Your task to perform on an android device: change the upload size in google photos Image 0: 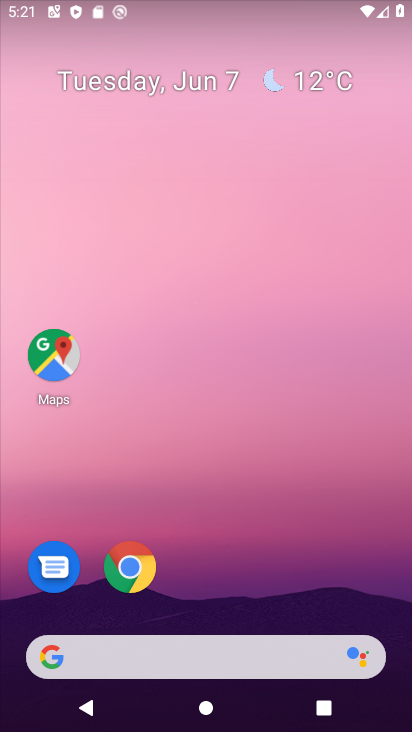
Step 0: drag from (275, 561) to (188, 18)
Your task to perform on an android device: change the upload size in google photos Image 1: 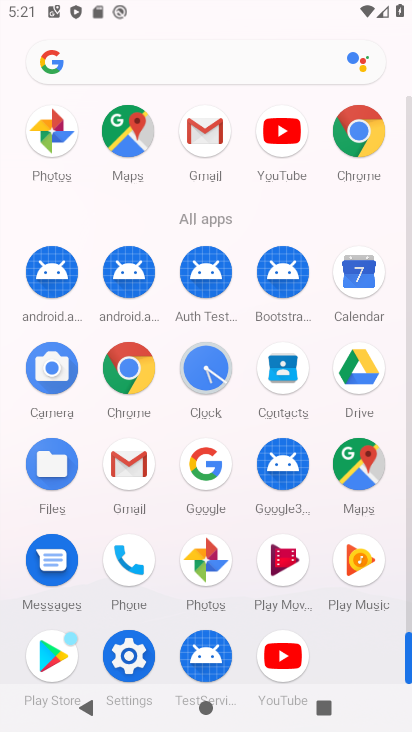
Step 1: click (205, 561)
Your task to perform on an android device: change the upload size in google photos Image 2: 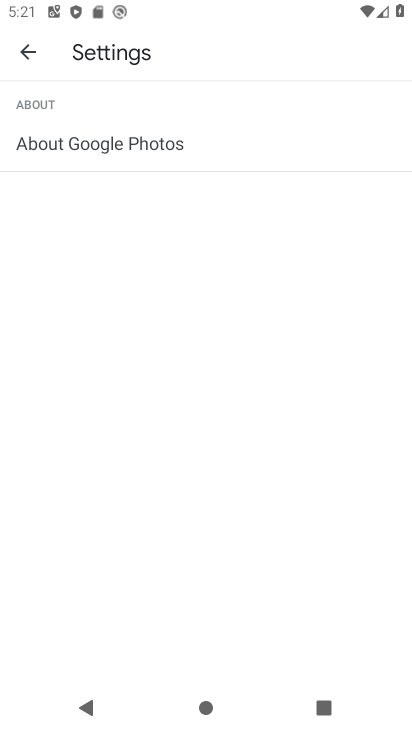
Step 2: click (28, 58)
Your task to perform on an android device: change the upload size in google photos Image 3: 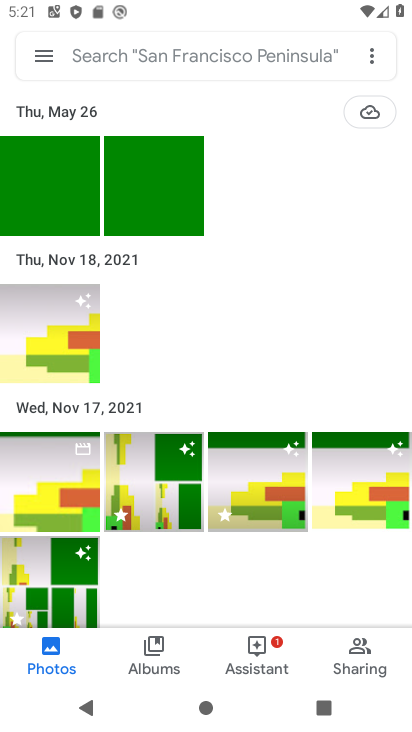
Step 3: click (50, 52)
Your task to perform on an android device: change the upload size in google photos Image 4: 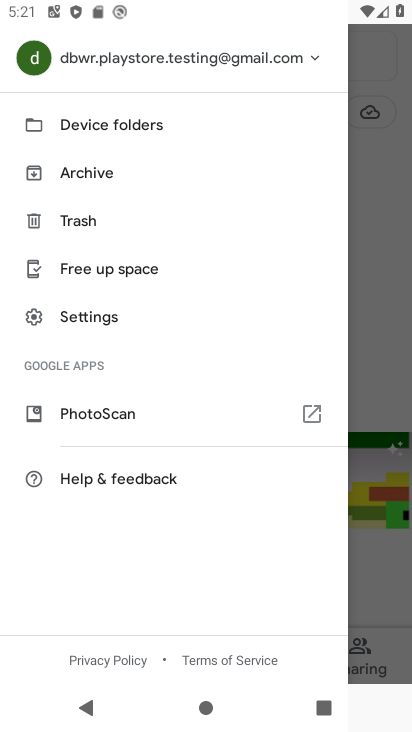
Step 4: click (118, 303)
Your task to perform on an android device: change the upload size in google photos Image 5: 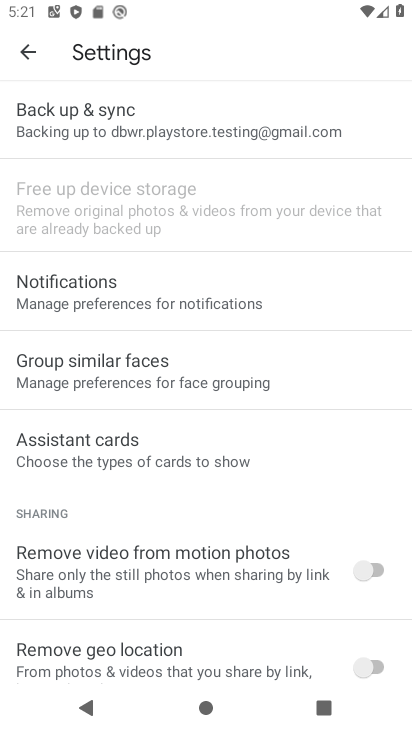
Step 5: click (194, 124)
Your task to perform on an android device: change the upload size in google photos Image 6: 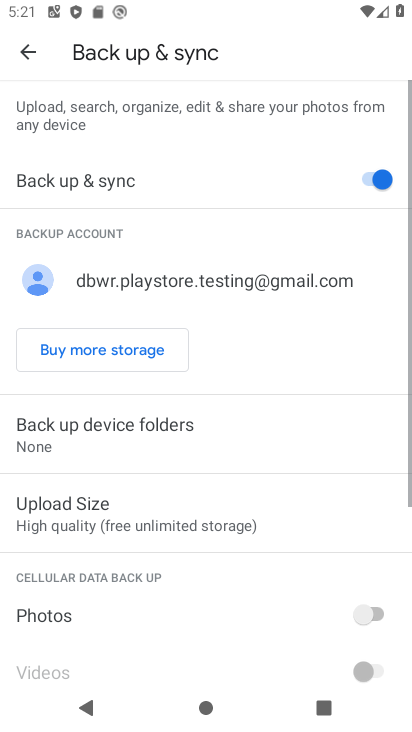
Step 6: click (171, 510)
Your task to perform on an android device: change the upload size in google photos Image 7: 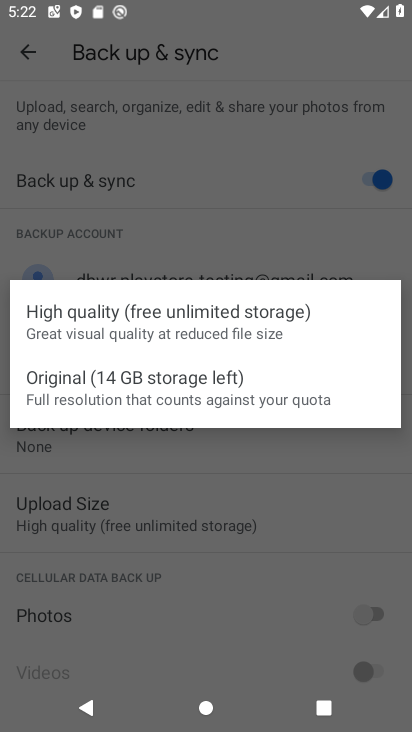
Step 7: click (189, 373)
Your task to perform on an android device: change the upload size in google photos Image 8: 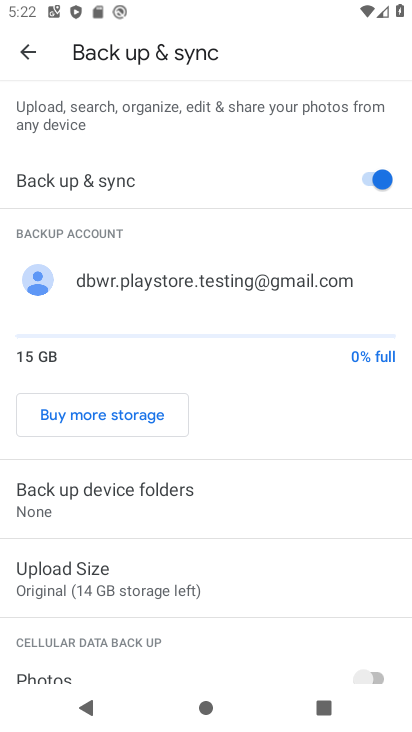
Step 8: task complete